Your task to perform on an android device: Open Google Maps Image 0: 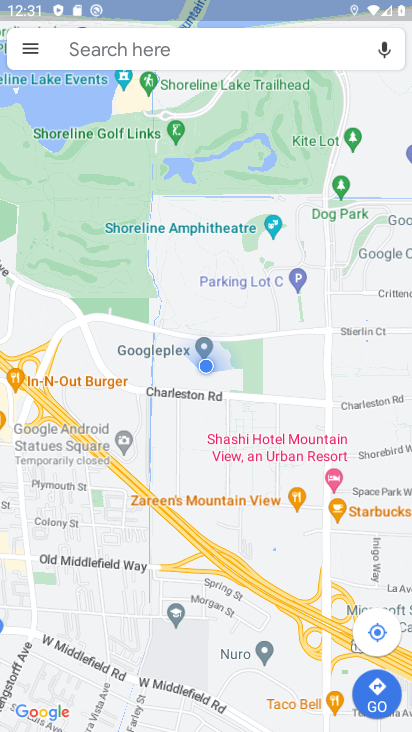
Step 0: task complete